Your task to perform on an android device: Open the stopwatch Image 0: 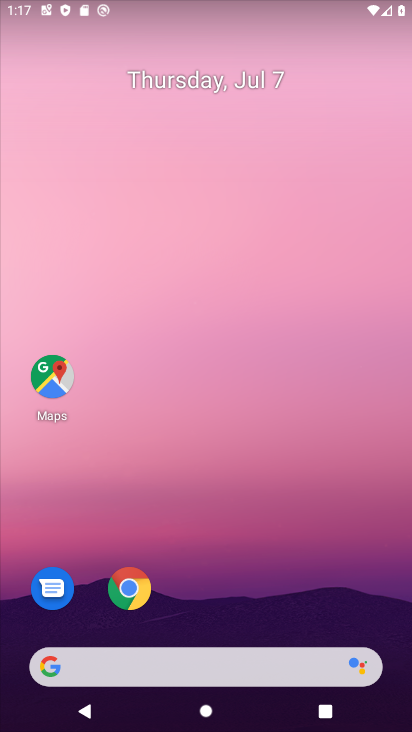
Step 0: click (242, 243)
Your task to perform on an android device: Open the stopwatch Image 1: 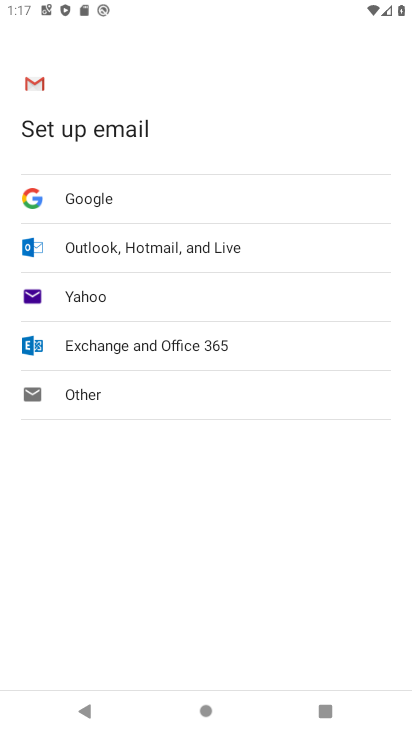
Step 1: press home button
Your task to perform on an android device: Open the stopwatch Image 2: 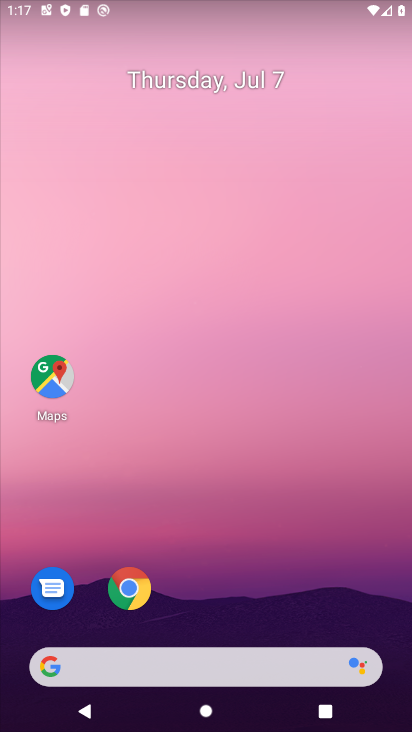
Step 2: drag from (200, 656) to (253, 157)
Your task to perform on an android device: Open the stopwatch Image 3: 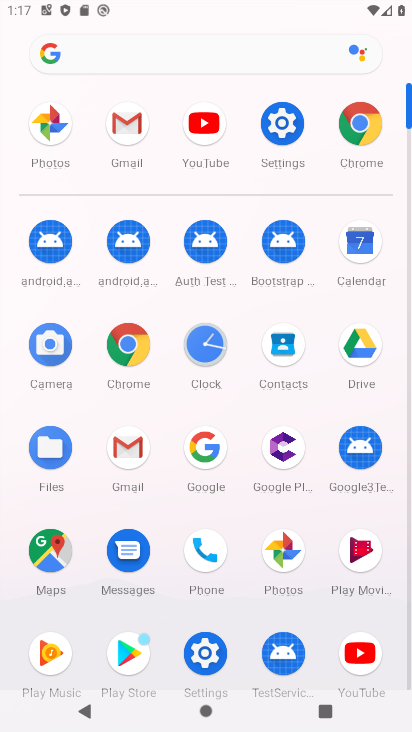
Step 3: click (202, 325)
Your task to perform on an android device: Open the stopwatch Image 4: 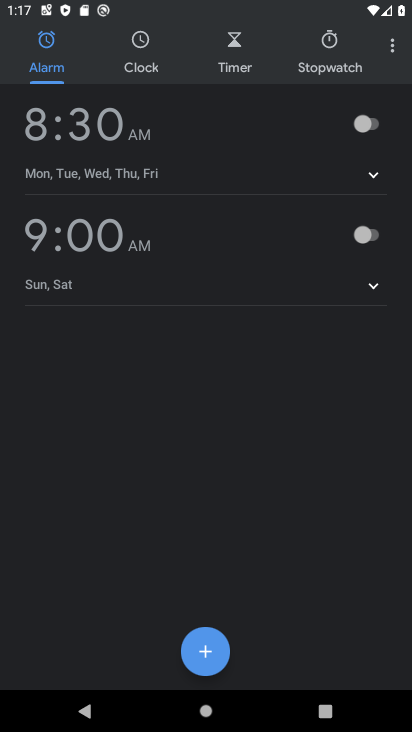
Step 4: click (320, 41)
Your task to perform on an android device: Open the stopwatch Image 5: 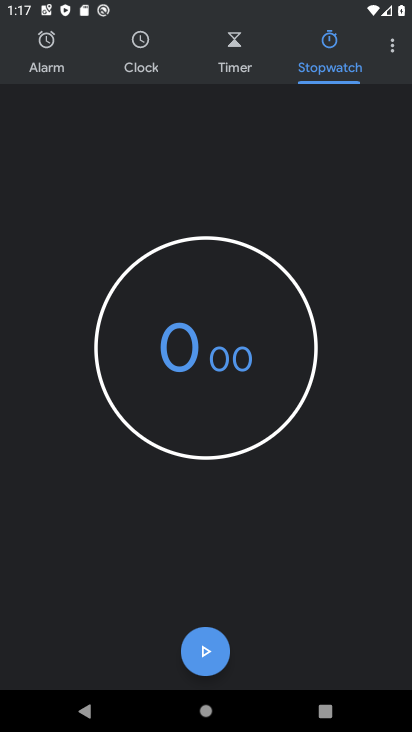
Step 5: task complete